Your task to perform on an android device: create a new album in the google photos Image 0: 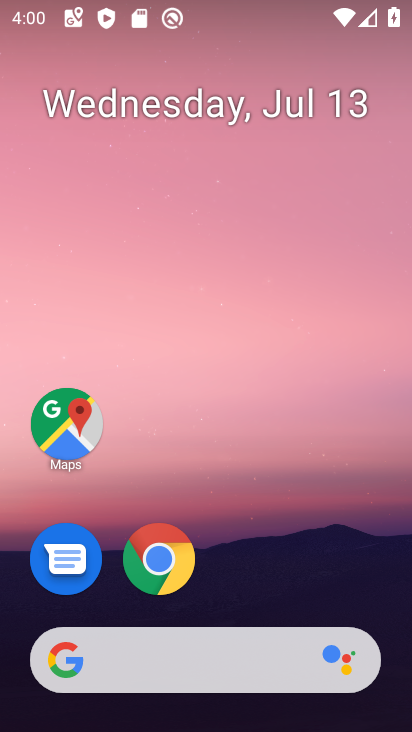
Step 0: drag from (351, 578) to (302, 64)
Your task to perform on an android device: create a new album in the google photos Image 1: 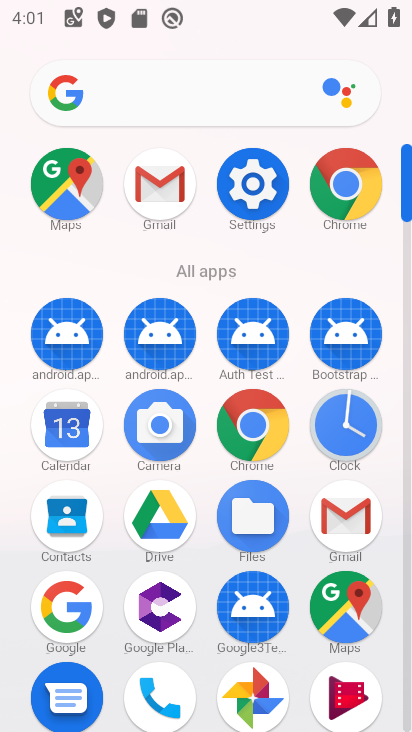
Step 1: click (244, 683)
Your task to perform on an android device: create a new album in the google photos Image 2: 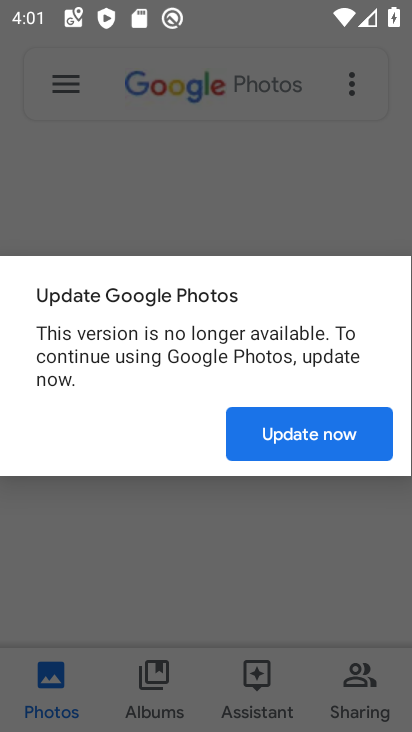
Step 2: click (288, 428)
Your task to perform on an android device: create a new album in the google photos Image 3: 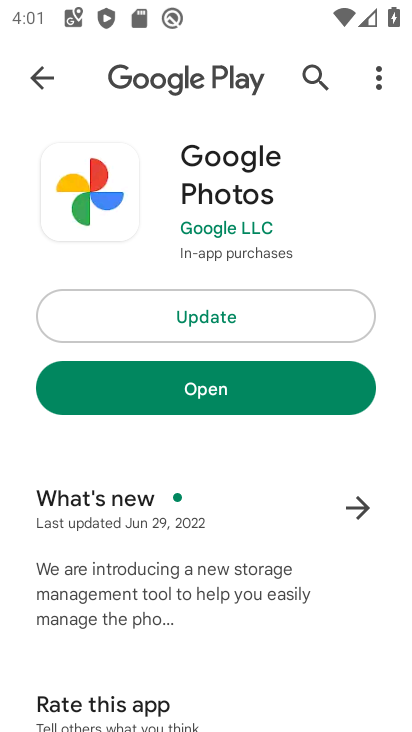
Step 3: click (264, 321)
Your task to perform on an android device: create a new album in the google photos Image 4: 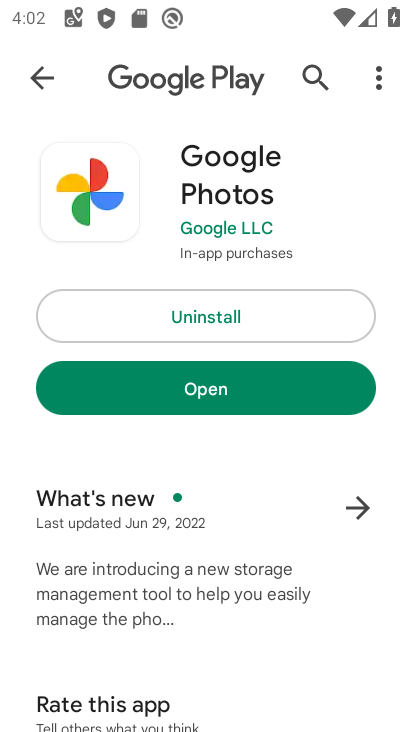
Step 4: click (185, 388)
Your task to perform on an android device: create a new album in the google photos Image 5: 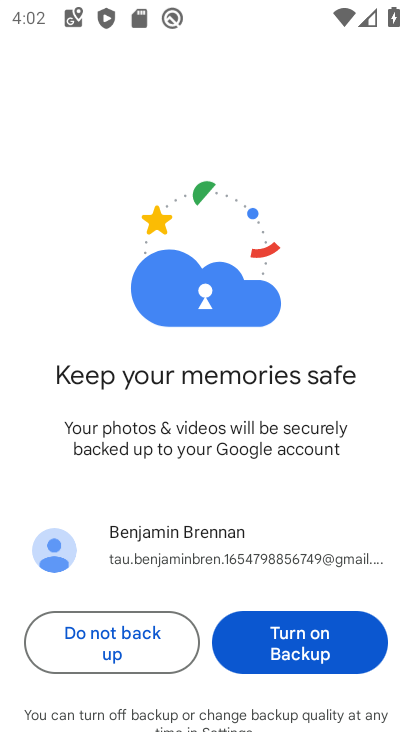
Step 5: click (163, 633)
Your task to perform on an android device: create a new album in the google photos Image 6: 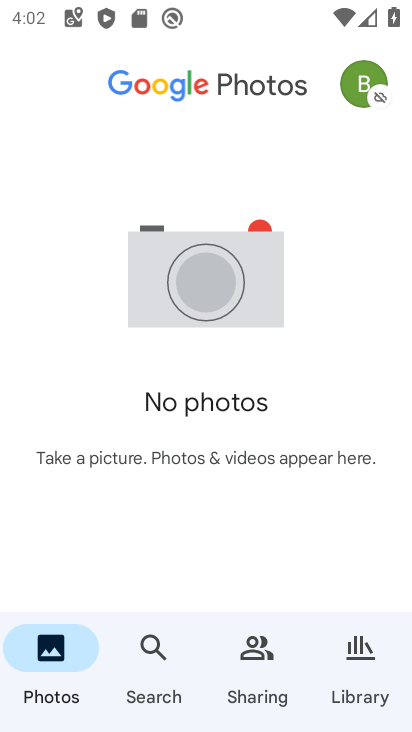
Step 6: click (348, 644)
Your task to perform on an android device: create a new album in the google photos Image 7: 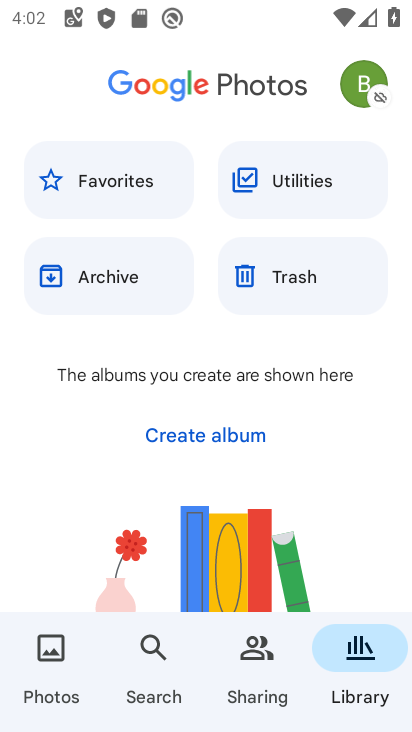
Step 7: click (204, 427)
Your task to perform on an android device: create a new album in the google photos Image 8: 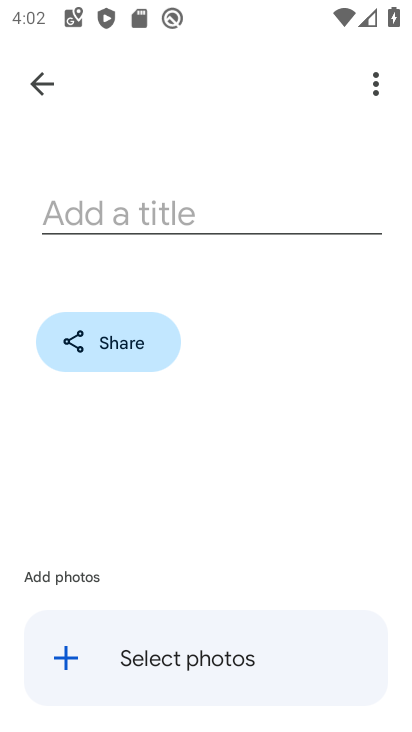
Step 8: click (181, 211)
Your task to perform on an android device: create a new album in the google photos Image 9: 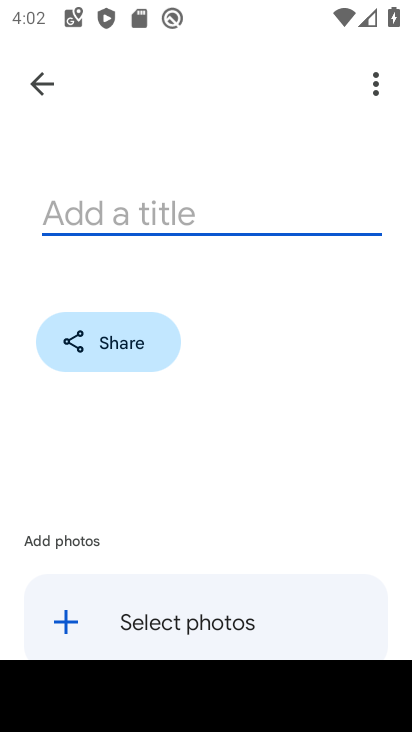
Step 9: type "mhvjhvjhvh"
Your task to perform on an android device: create a new album in the google photos Image 10: 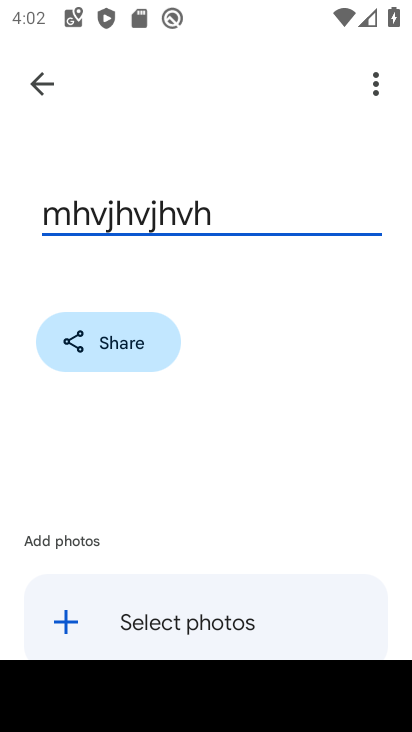
Step 10: click (234, 620)
Your task to perform on an android device: create a new album in the google photos Image 11: 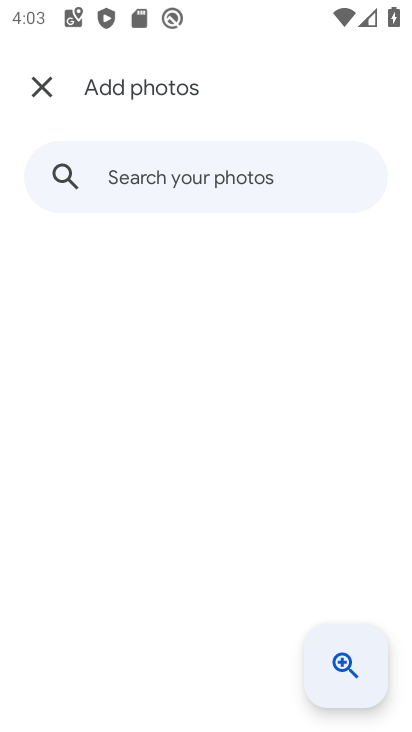
Step 11: task complete